Your task to perform on an android device: Open Android settings Image 0: 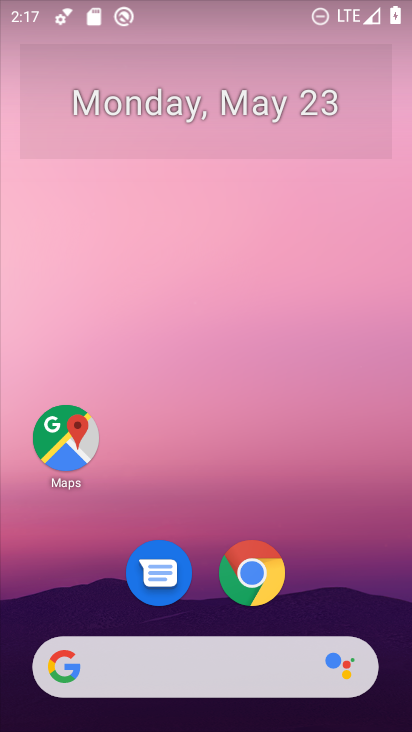
Step 0: drag from (324, 508) to (332, 187)
Your task to perform on an android device: Open Android settings Image 1: 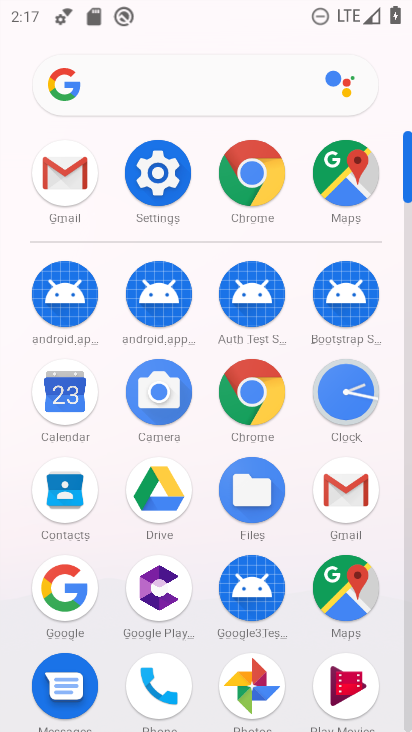
Step 1: click (168, 155)
Your task to perform on an android device: Open Android settings Image 2: 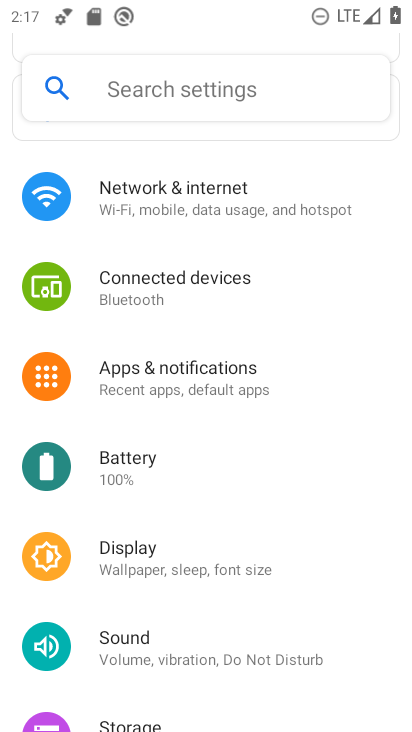
Step 2: task complete